Your task to perform on an android device: Open the calendar and show me this week's events? Image 0: 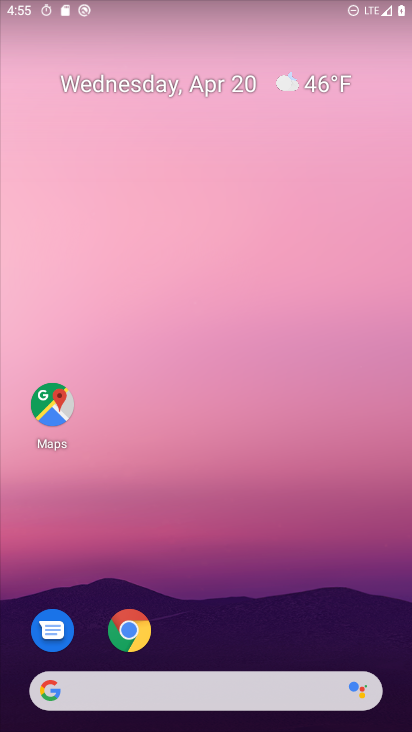
Step 0: drag from (280, 519) to (268, 68)
Your task to perform on an android device: Open the calendar and show me this week's events? Image 1: 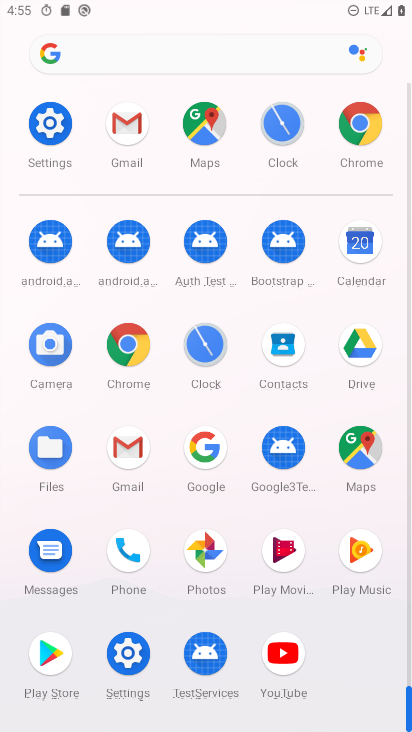
Step 1: click (374, 250)
Your task to perform on an android device: Open the calendar and show me this week's events? Image 2: 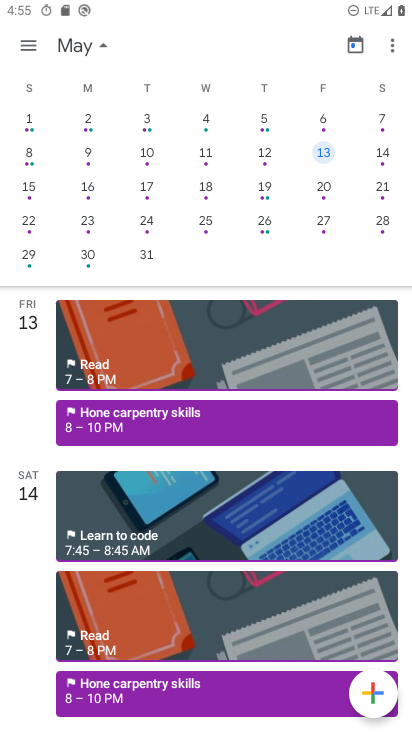
Step 2: drag from (99, 207) to (403, 178)
Your task to perform on an android device: Open the calendar and show me this week's events? Image 3: 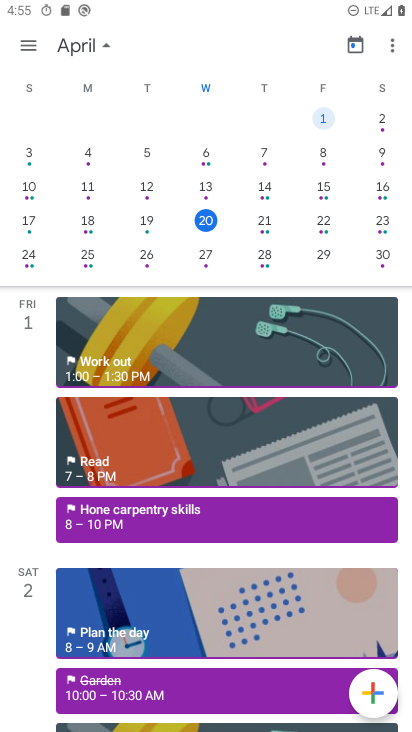
Step 3: click (261, 221)
Your task to perform on an android device: Open the calendar and show me this week's events? Image 4: 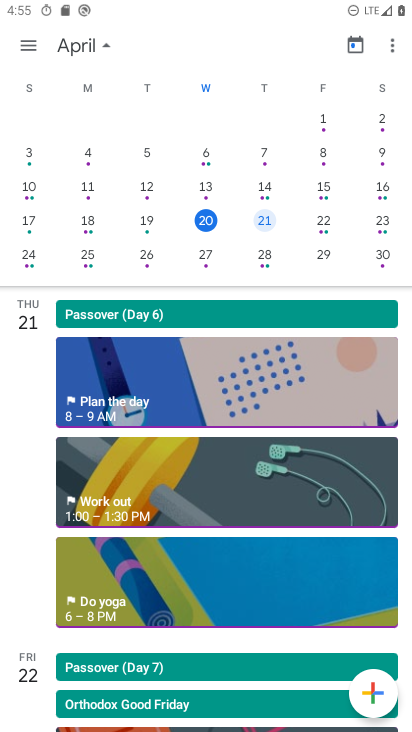
Step 4: task complete